Your task to perform on an android device: What is the recent news? Image 0: 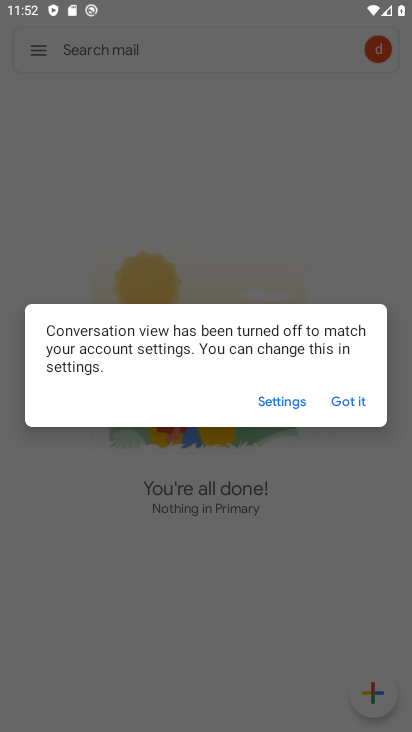
Step 0: press home button
Your task to perform on an android device: What is the recent news? Image 1: 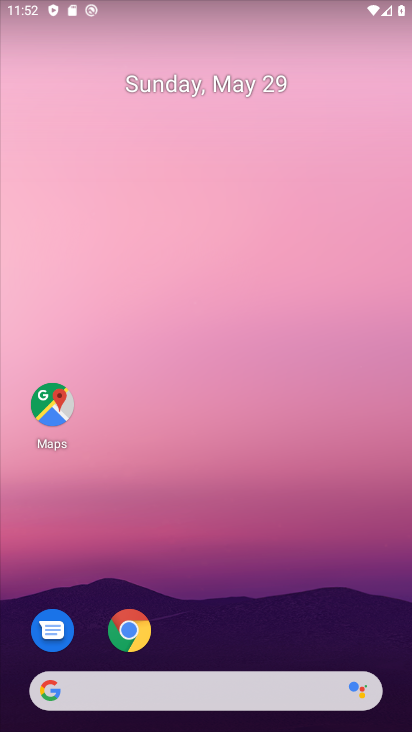
Step 1: click (199, 691)
Your task to perform on an android device: What is the recent news? Image 2: 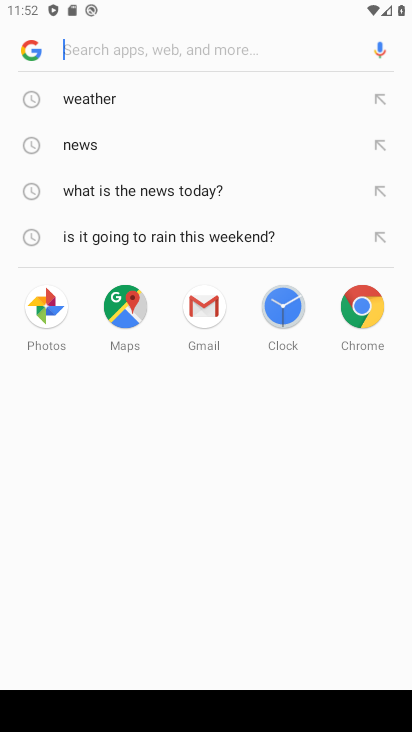
Step 2: type "recent news"
Your task to perform on an android device: What is the recent news? Image 3: 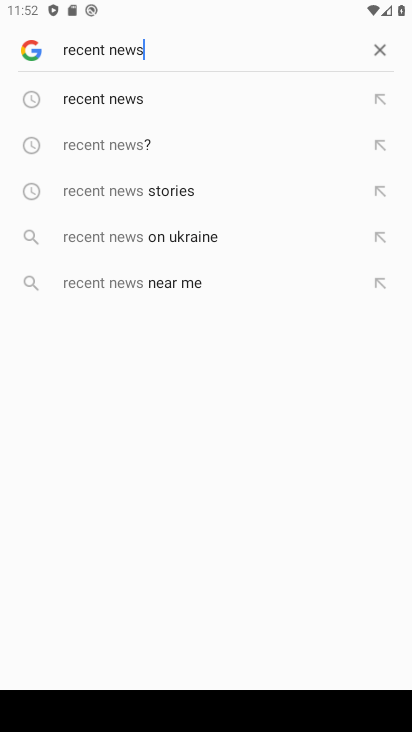
Step 3: click (133, 96)
Your task to perform on an android device: What is the recent news? Image 4: 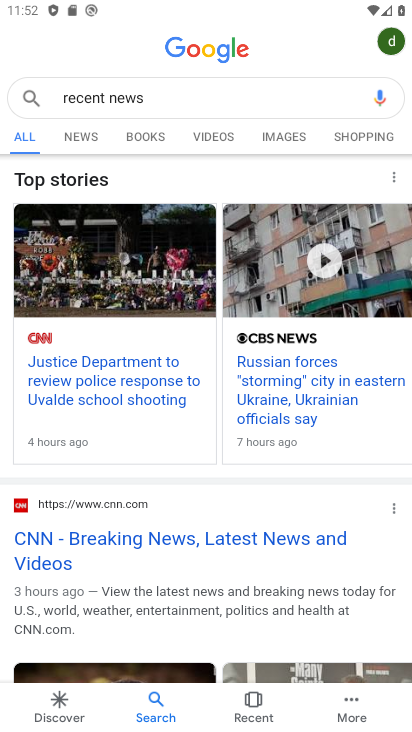
Step 4: task complete